Your task to perform on an android device: check the backup settings in the google photos Image 0: 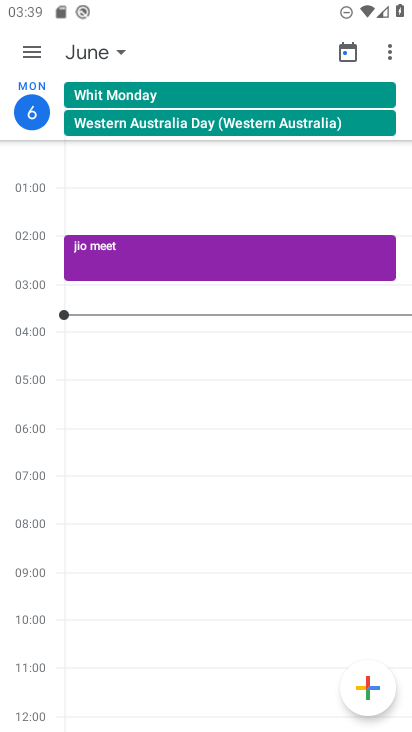
Step 0: press home button
Your task to perform on an android device: check the backup settings in the google photos Image 1: 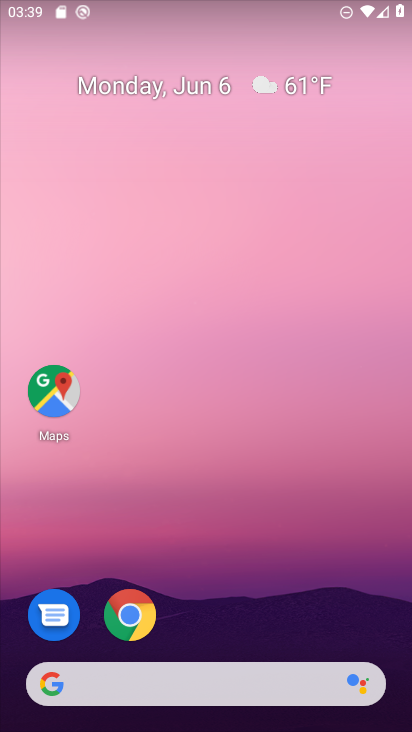
Step 1: drag from (385, 562) to (344, 128)
Your task to perform on an android device: check the backup settings in the google photos Image 2: 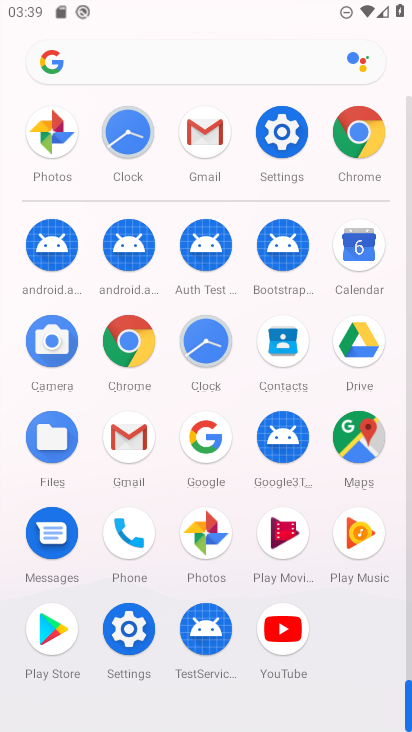
Step 2: click (201, 531)
Your task to perform on an android device: check the backup settings in the google photos Image 3: 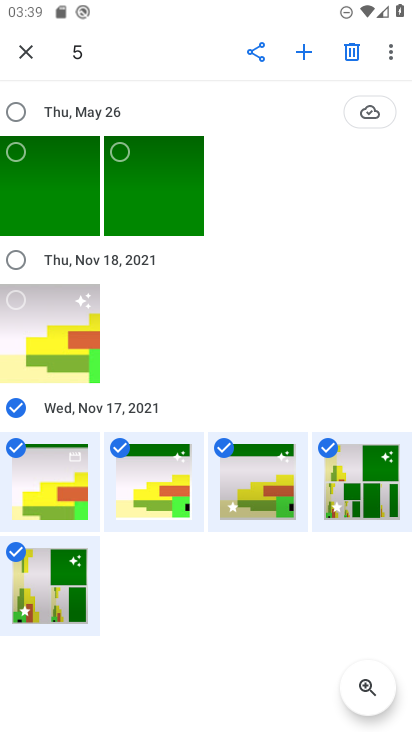
Step 3: click (25, 50)
Your task to perform on an android device: check the backup settings in the google photos Image 4: 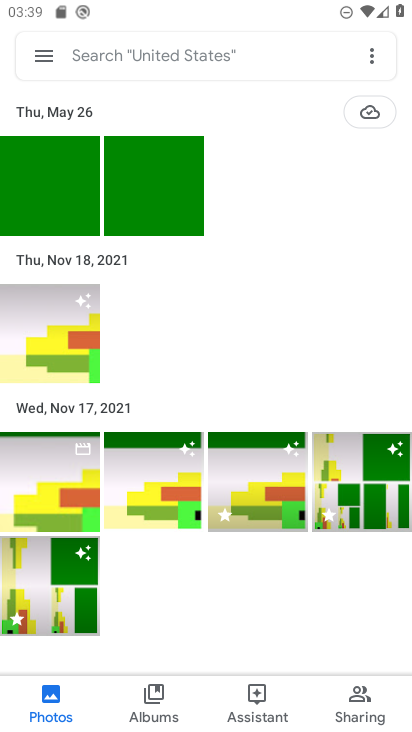
Step 4: click (43, 52)
Your task to perform on an android device: check the backup settings in the google photos Image 5: 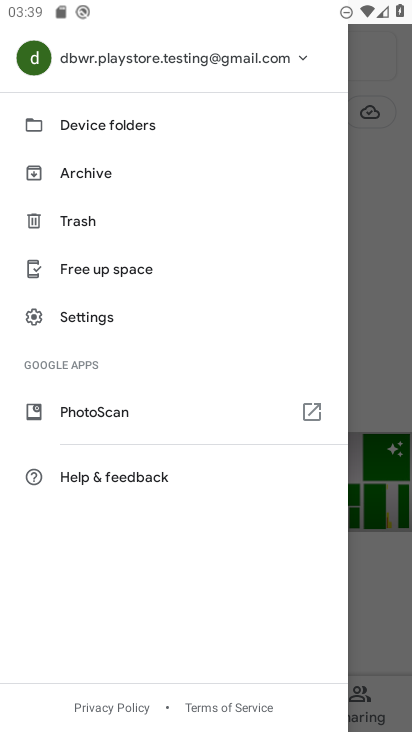
Step 5: click (86, 322)
Your task to perform on an android device: check the backup settings in the google photos Image 6: 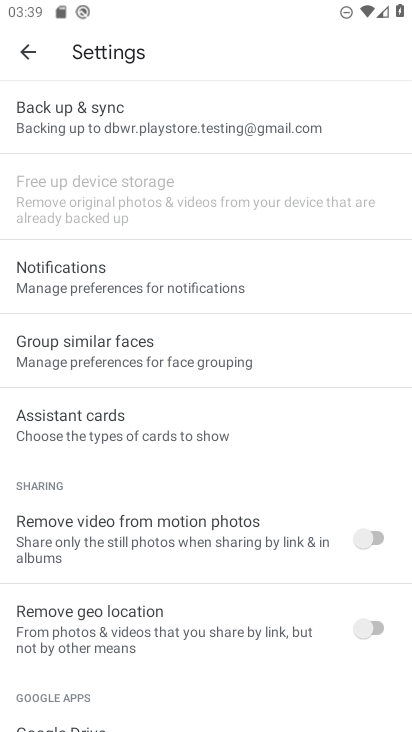
Step 6: click (87, 106)
Your task to perform on an android device: check the backup settings in the google photos Image 7: 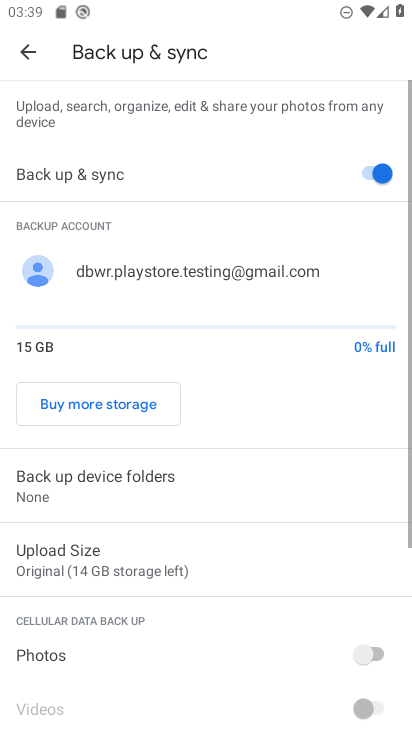
Step 7: task complete